Your task to perform on an android device: see tabs open on other devices in the chrome app Image 0: 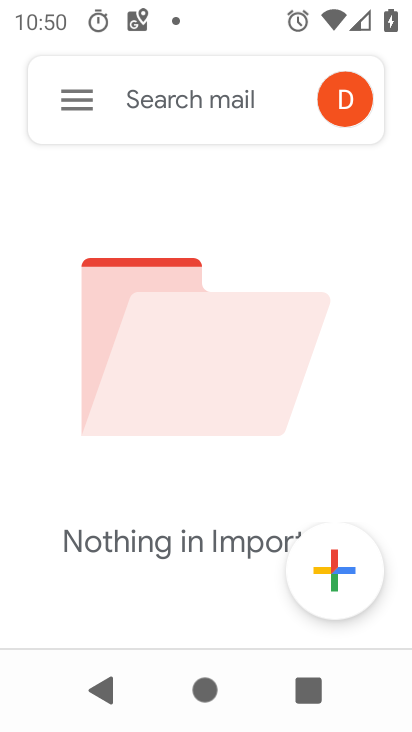
Step 0: press home button
Your task to perform on an android device: see tabs open on other devices in the chrome app Image 1: 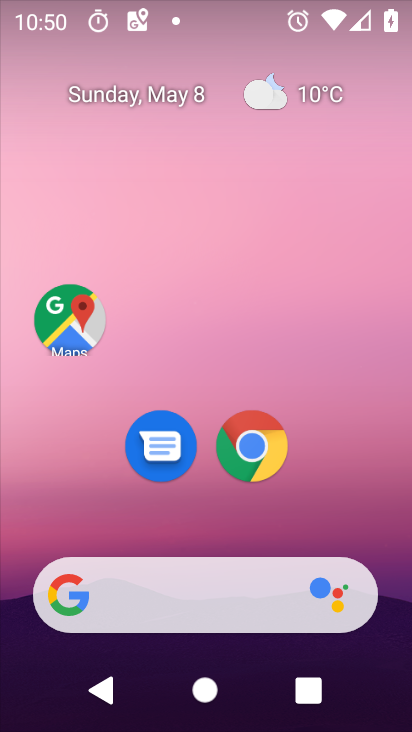
Step 1: click (243, 449)
Your task to perform on an android device: see tabs open on other devices in the chrome app Image 2: 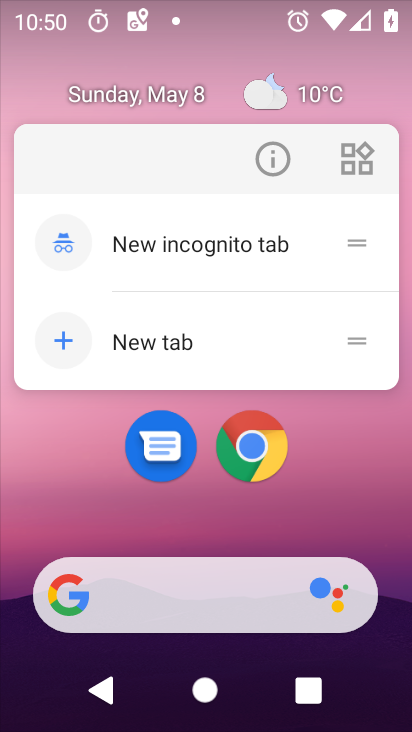
Step 2: click (256, 457)
Your task to perform on an android device: see tabs open on other devices in the chrome app Image 3: 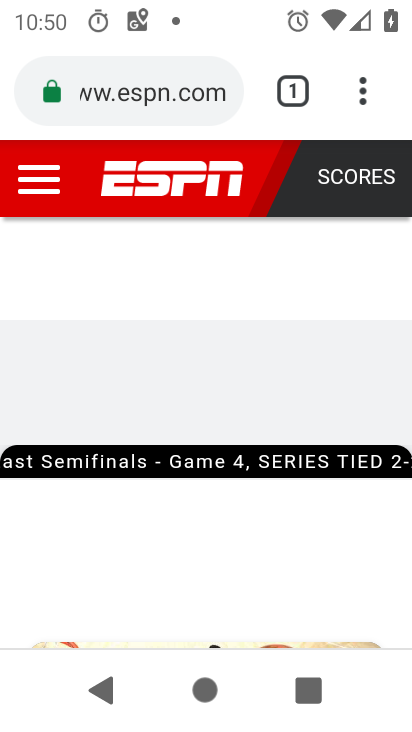
Step 3: drag from (365, 93) to (115, 424)
Your task to perform on an android device: see tabs open on other devices in the chrome app Image 4: 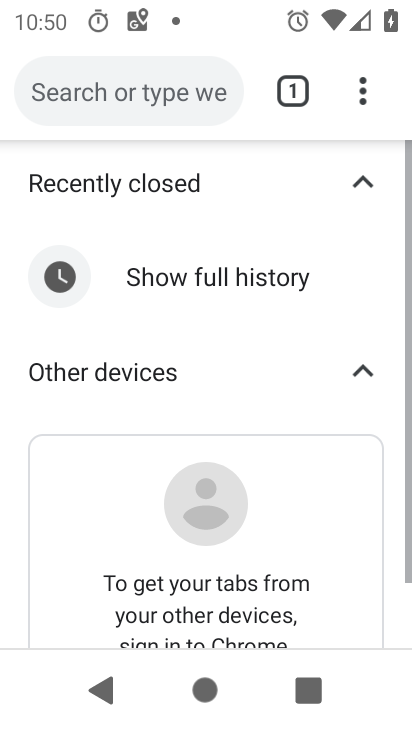
Step 4: drag from (196, 525) to (211, 229)
Your task to perform on an android device: see tabs open on other devices in the chrome app Image 5: 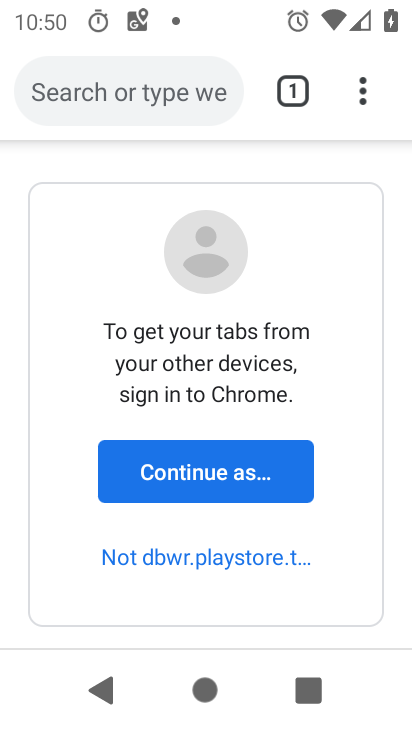
Step 5: click (182, 458)
Your task to perform on an android device: see tabs open on other devices in the chrome app Image 6: 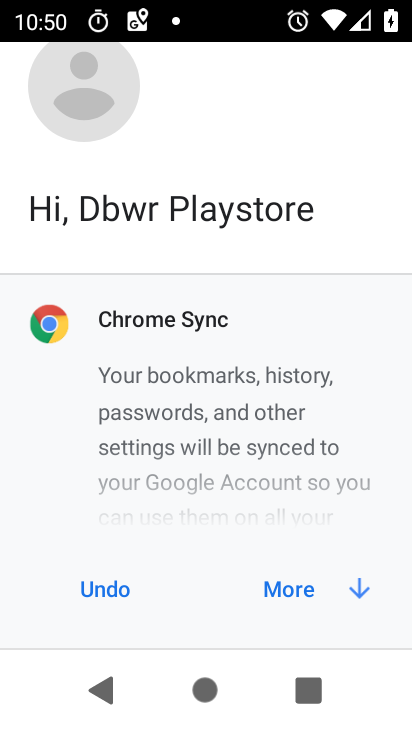
Step 6: click (274, 585)
Your task to perform on an android device: see tabs open on other devices in the chrome app Image 7: 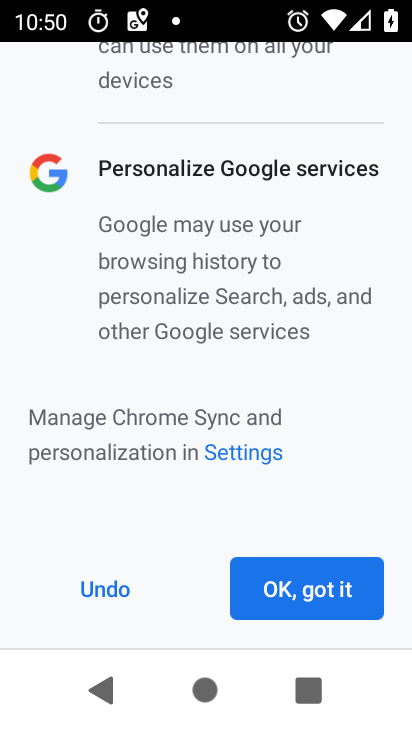
Step 7: click (274, 585)
Your task to perform on an android device: see tabs open on other devices in the chrome app Image 8: 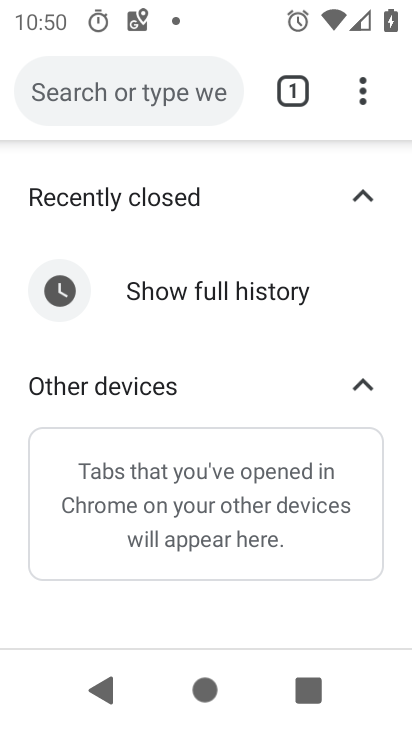
Step 8: task complete